Your task to perform on an android device: Search for seafood restaurants on Google Maps Image 0: 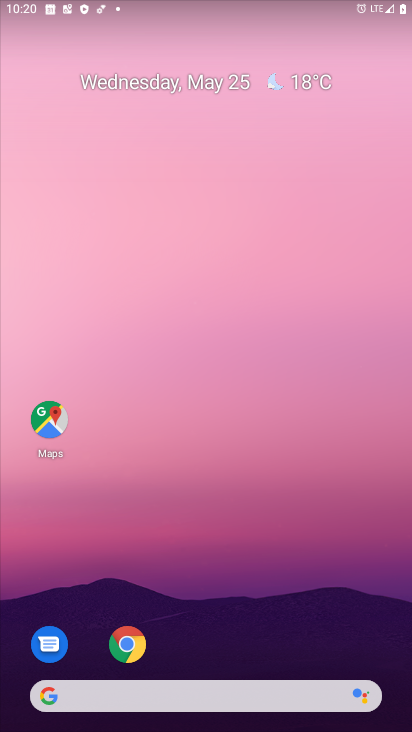
Step 0: press home button
Your task to perform on an android device: Search for seafood restaurants on Google Maps Image 1: 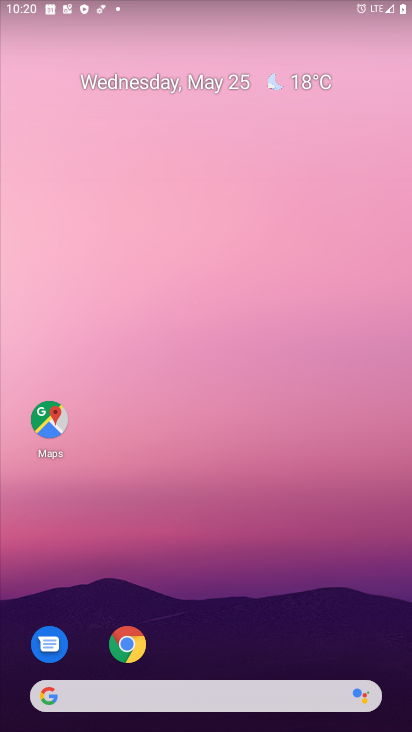
Step 1: click (49, 412)
Your task to perform on an android device: Search for seafood restaurants on Google Maps Image 2: 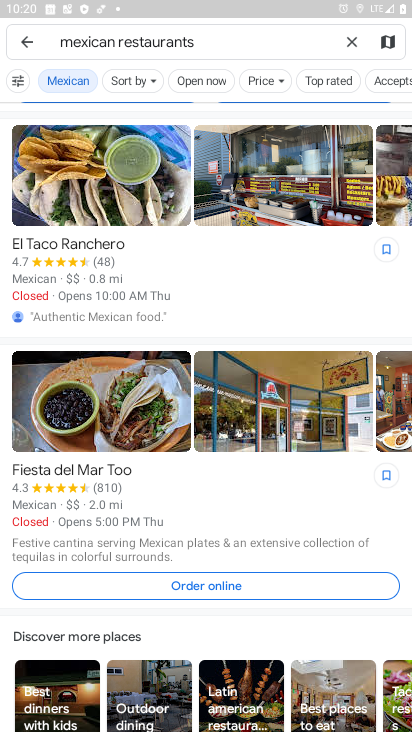
Step 2: click (352, 39)
Your task to perform on an android device: Search for seafood restaurants on Google Maps Image 3: 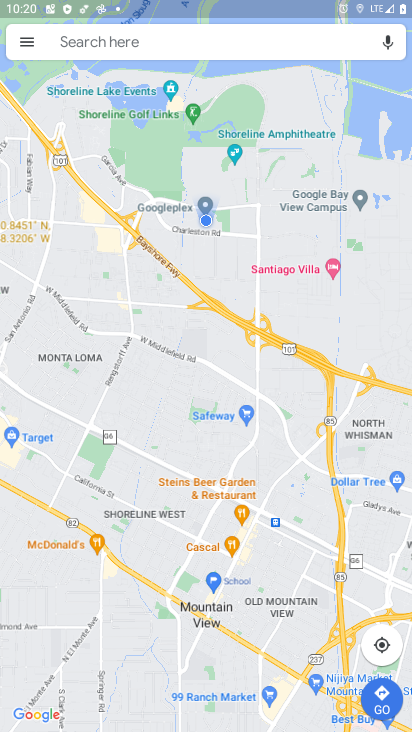
Step 3: type "seafood"
Your task to perform on an android device: Search for seafood restaurants on Google Maps Image 4: 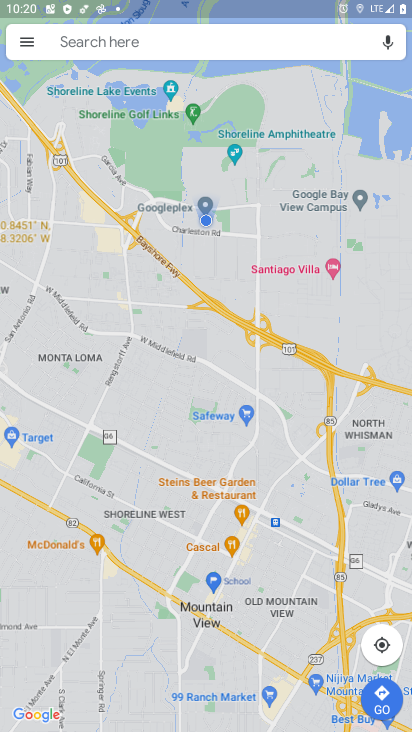
Step 4: type ""
Your task to perform on an android device: Search for seafood restaurants on Google Maps Image 5: 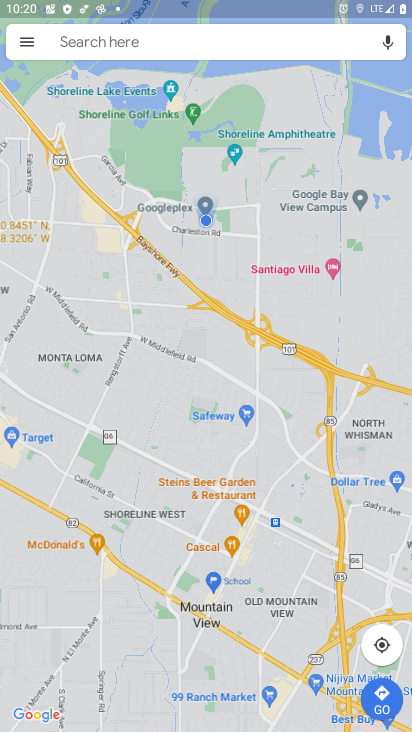
Step 5: click (66, 34)
Your task to perform on an android device: Search for seafood restaurants on Google Maps Image 6: 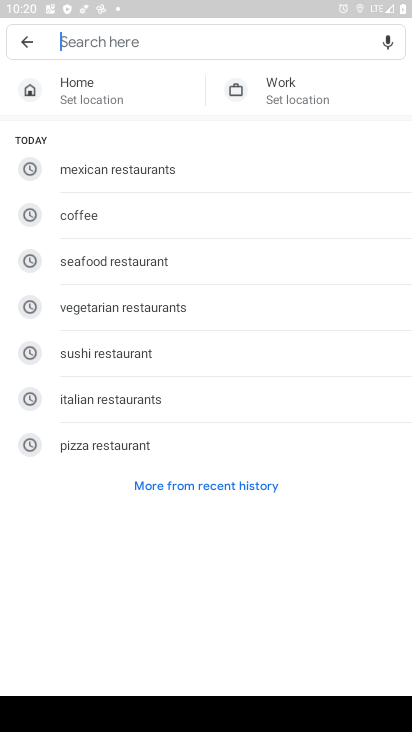
Step 6: click (115, 265)
Your task to perform on an android device: Search for seafood restaurants on Google Maps Image 7: 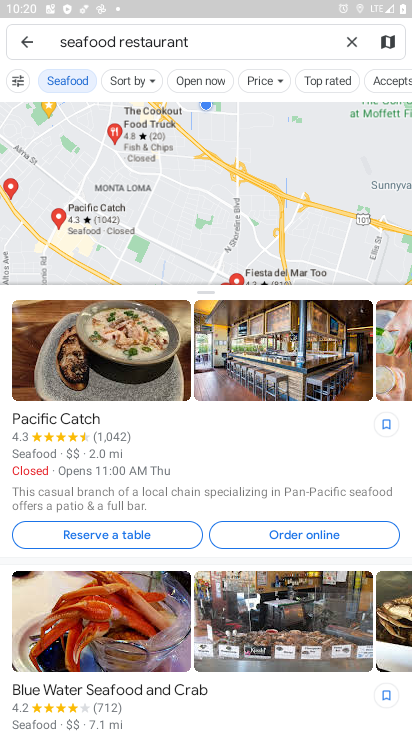
Step 7: task complete